Your task to perform on an android device: all mails in gmail Image 0: 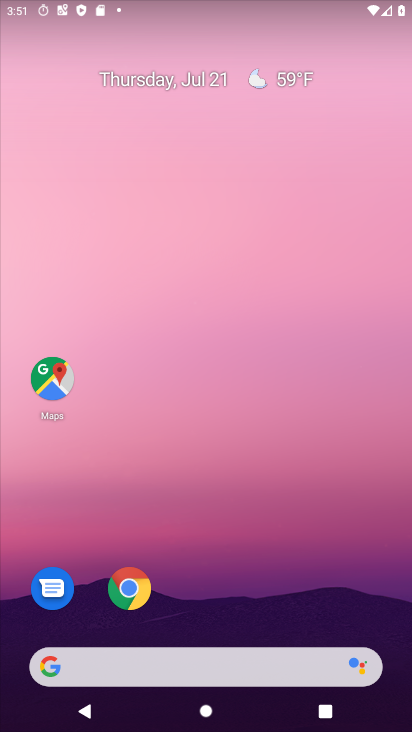
Step 0: drag from (294, 649) to (286, 220)
Your task to perform on an android device: all mails in gmail Image 1: 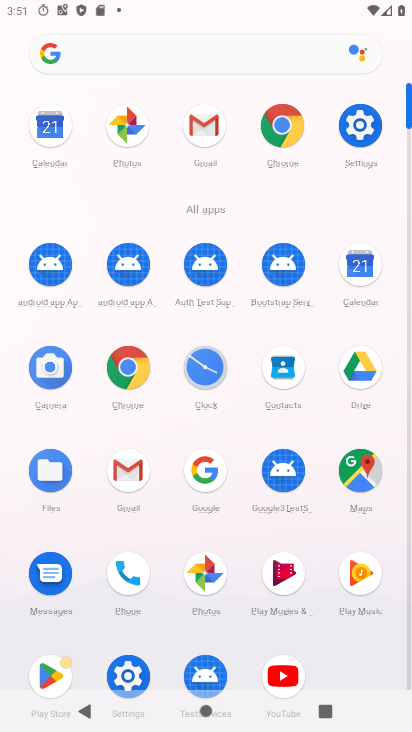
Step 1: click (131, 492)
Your task to perform on an android device: all mails in gmail Image 2: 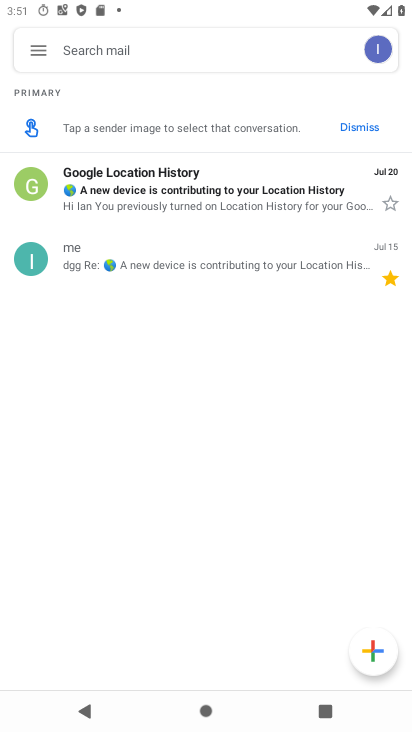
Step 2: click (40, 51)
Your task to perform on an android device: all mails in gmail Image 3: 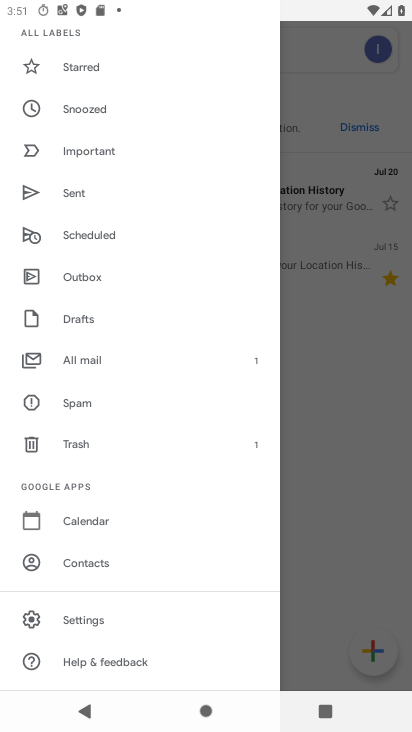
Step 3: click (97, 353)
Your task to perform on an android device: all mails in gmail Image 4: 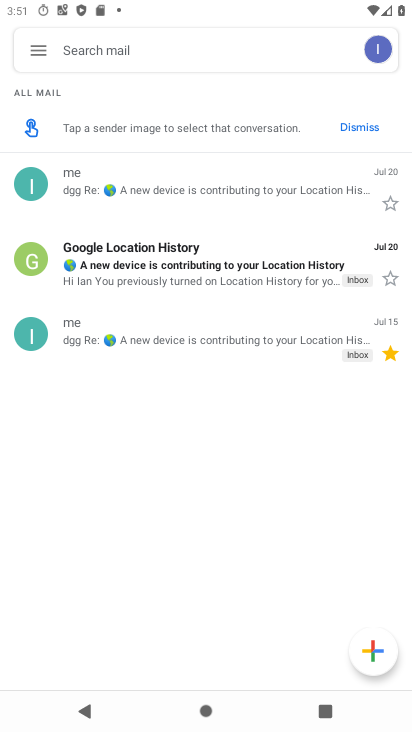
Step 4: task complete